Your task to perform on an android device: Search for Italian restaurants on Maps Image 0: 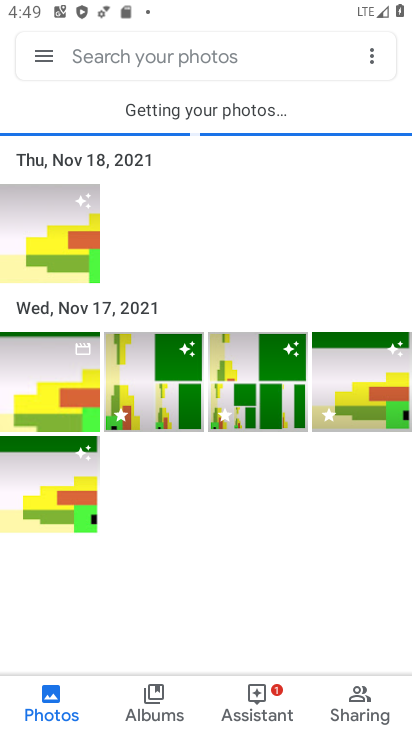
Step 0: press home button
Your task to perform on an android device: Search for Italian restaurants on Maps Image 1: 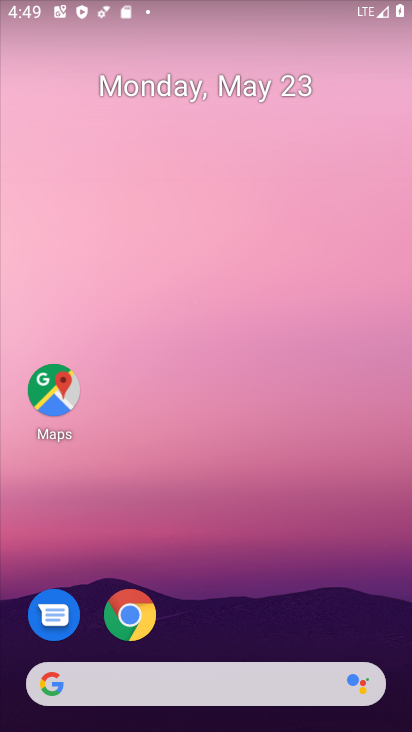
Step 1: drag from (251, 574) to (247, 450)
Your task to perform on an android device: Search for Italian restaurants on Maps Image 2: 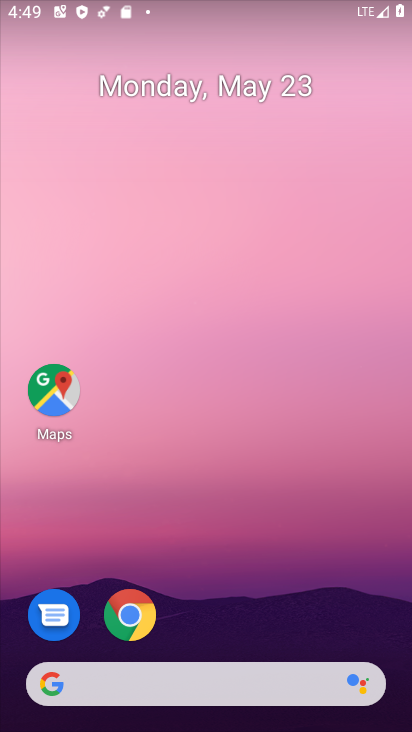
Step 2: click (49, 392)
Your task to perform on an android device: Search for Italian restaurants on Maps Image 3: 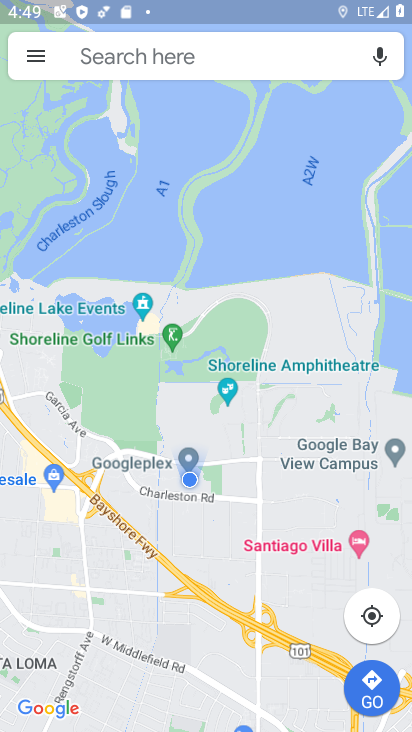
Step 3: click (233, 59)
Your task to perform on an android device: Search for Italian restaurants on Maps Image 4: 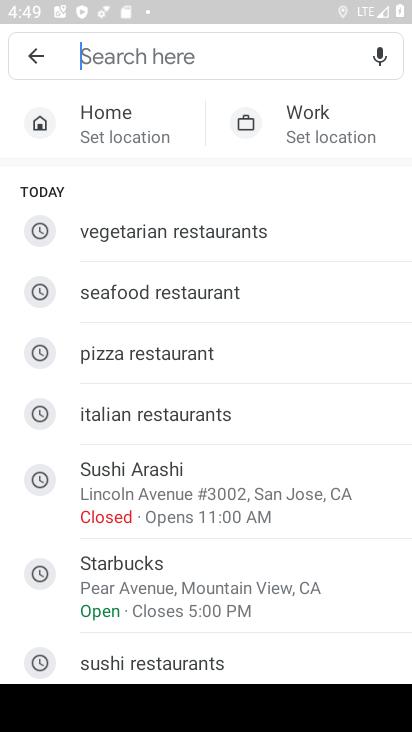
Step 4: type " Italian restaurants"
Your task to perform on an android device: Search for Italian restaurants on Maps Image 5: 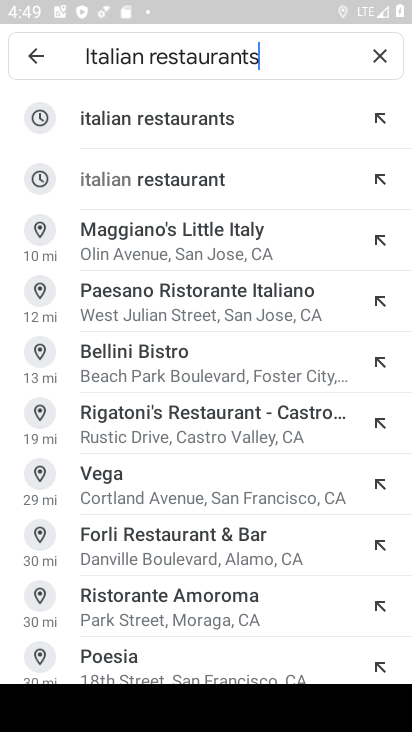
Step 5: click (158, 118)
Your task to perform on an android device: Search for Italian restaurants on Maps Image 6: 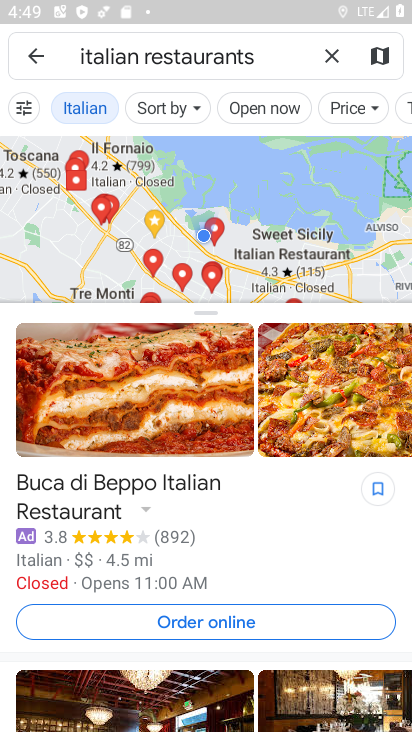
Step 6: task complete